Your task to perform on an android device: Open display settings Image 0: 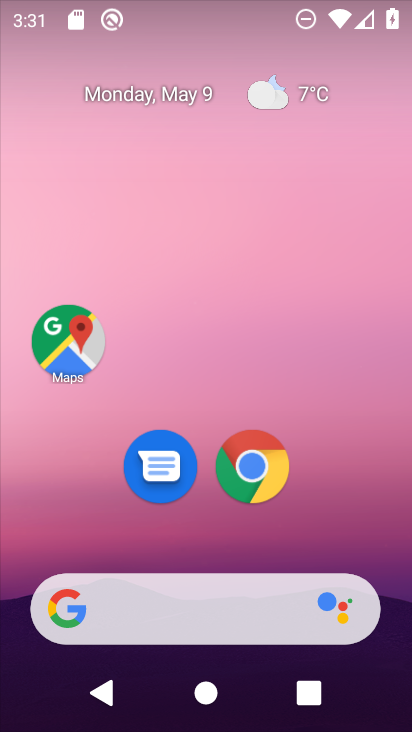
Step 0: drag from (26, 645) to (332, 173)
Your task to perform on an android device: Open display settings Image 1: 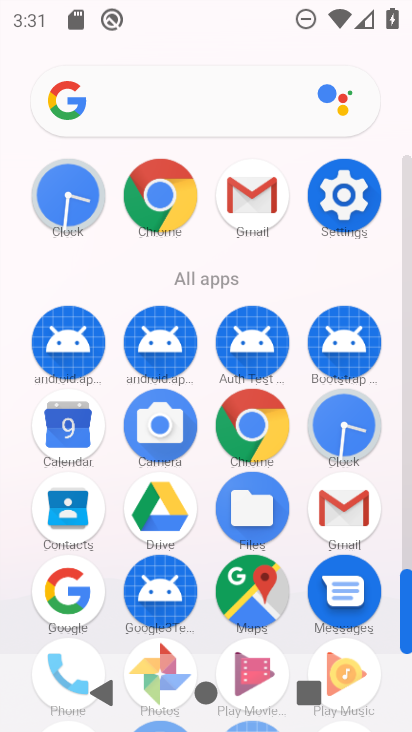
Step 1: click (376, 203)
Your task to perform on an android device: Open display settings Image 2: 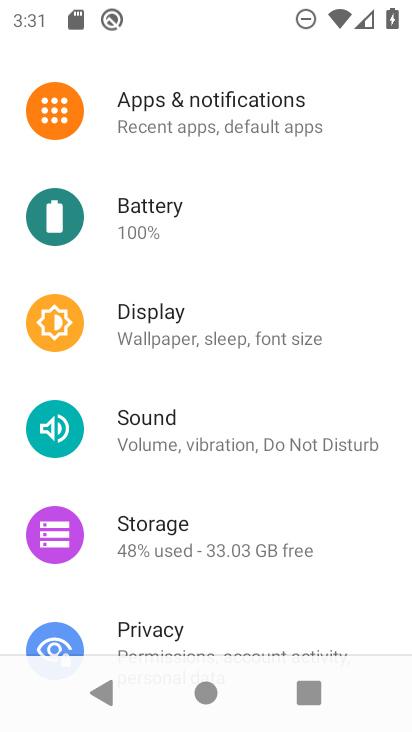
Step 2: click (227, 330)
Your task to perform on an android device: Open display settings Image 3: 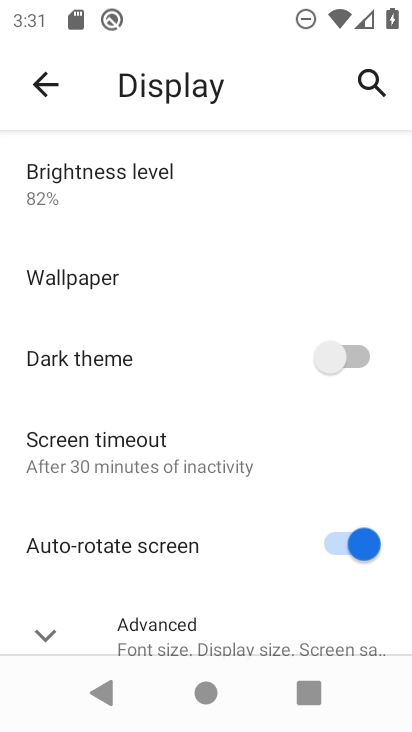
Step 3: task complete